Your task to perform on an android device: Open Google Image 0: 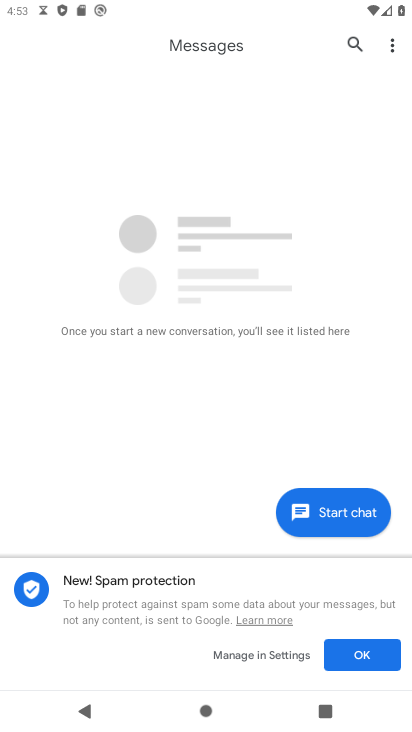
Step 0: press back button
Your task to perform on an android device: Open Google Image 1: 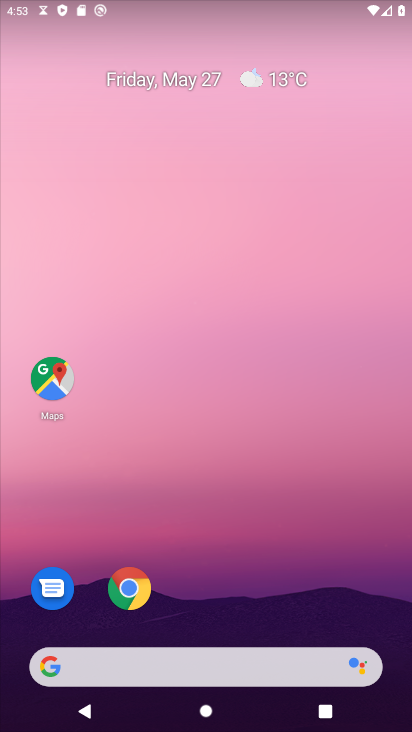
Step 1: drag from (235, 602) to (366, 33)
Your task to perform on an android device: Open Google Image 2: 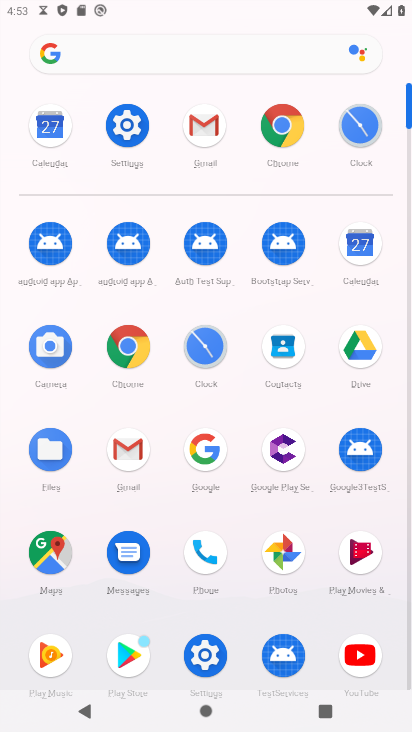
Step 2: click (210, 453)
Your task to perform on an android device: Open Google Image 3: 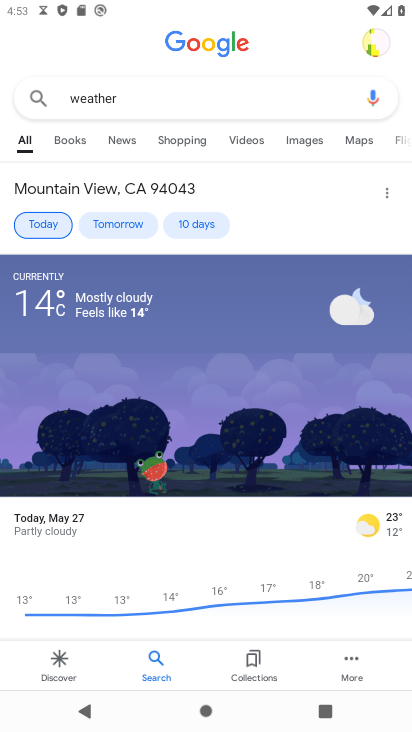
Step 3: task complete